Your task to perform on an android device: Open accessibility settings Image 0: 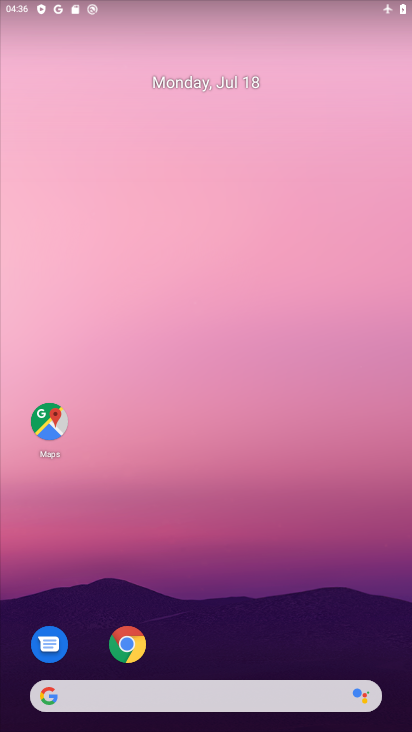
Step 0: press home button
Your task to perform on an android device: Open accessibility settings Image 1: 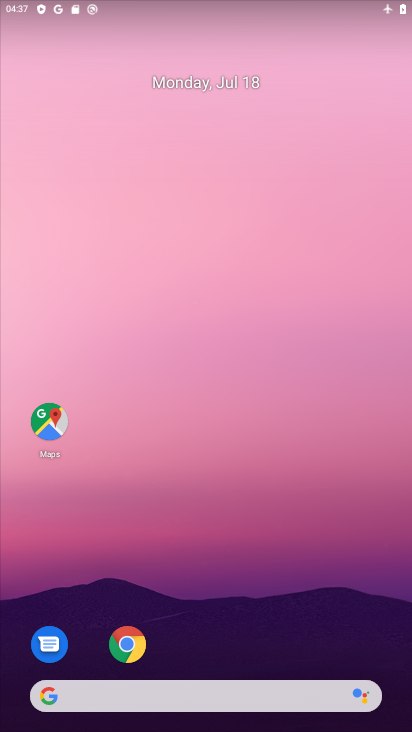
Step 1: drag from (230, 656) to (230, 3)
Your task to perform on an android device: Open accessibility settings Image 2: 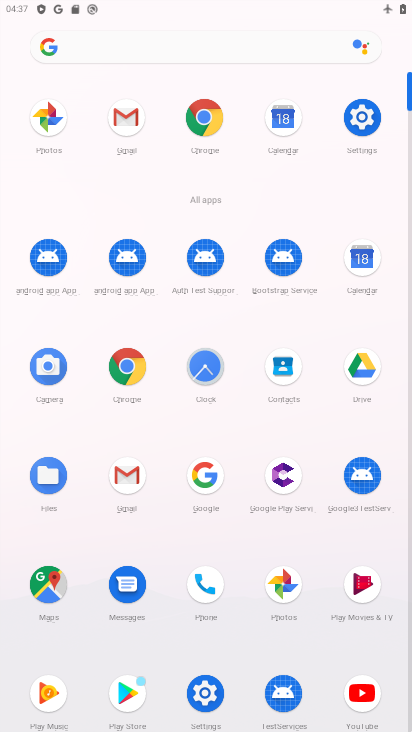
Step 2: click (351, 116)
Your task to perform on an android device: Open accessibility settings Image 3: 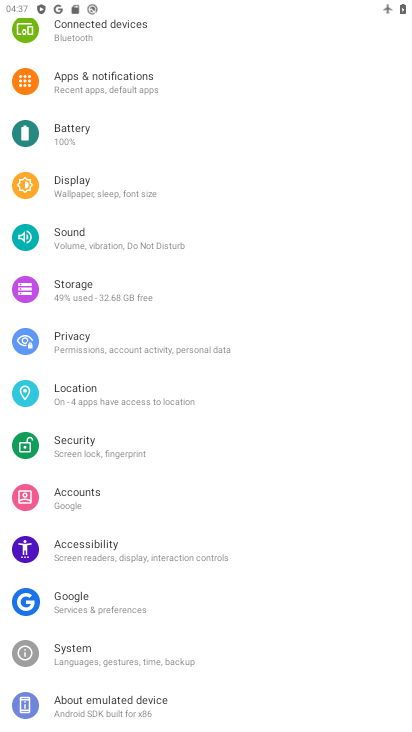
Step 3: click (87, 550)
Your task to perform on an android device: Open accessibility settings Image 4: 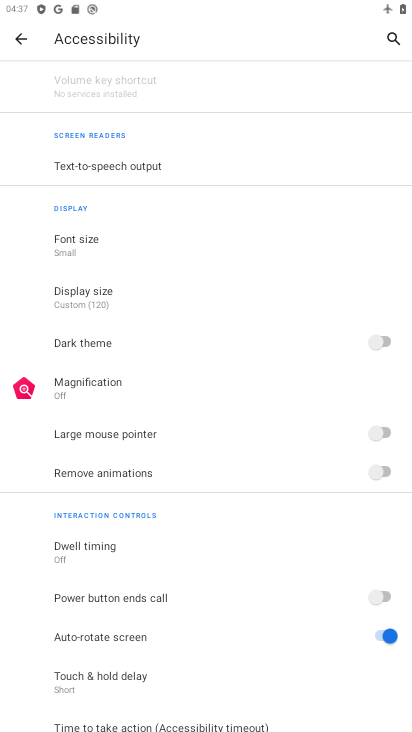
Step 4: task complete